Your task to perform on an android device: What's the weather? Image 0: 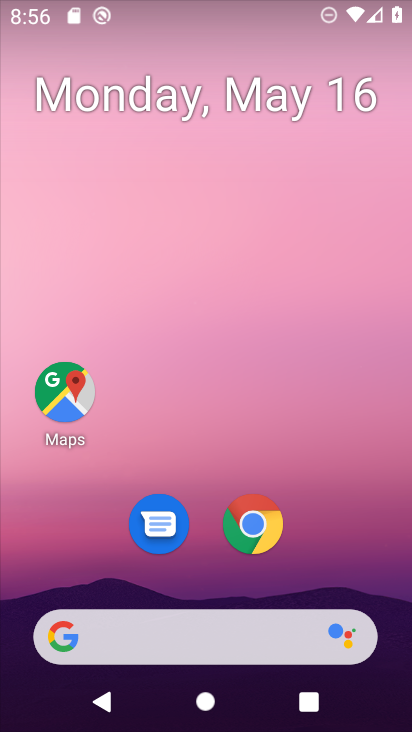
Step 0: click (185, 643)
Your task to perform on an android device: What's the weather? Image 1: 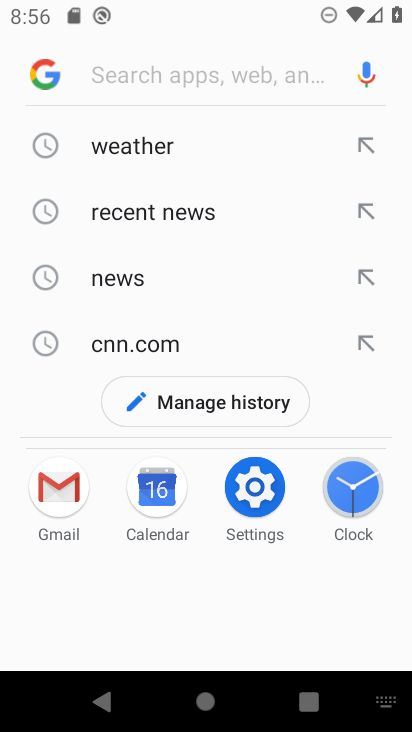
Step 1: click (97, 136)
Your task to perform on an android device: What's the weather? Image 2: 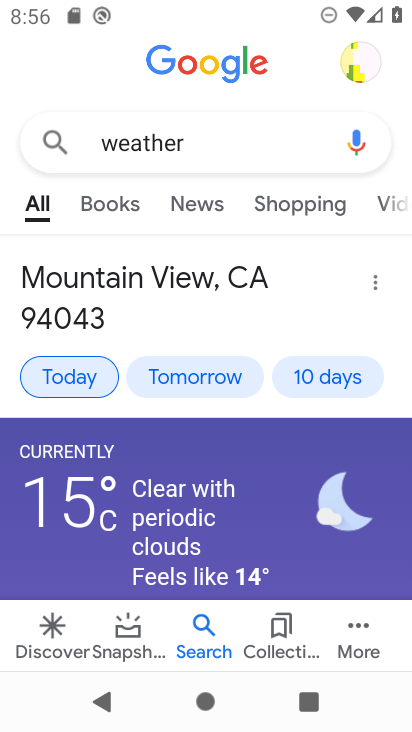
Step 2: click (81, 371)
Your task to perform on an android device: What's the weather? Image 3: 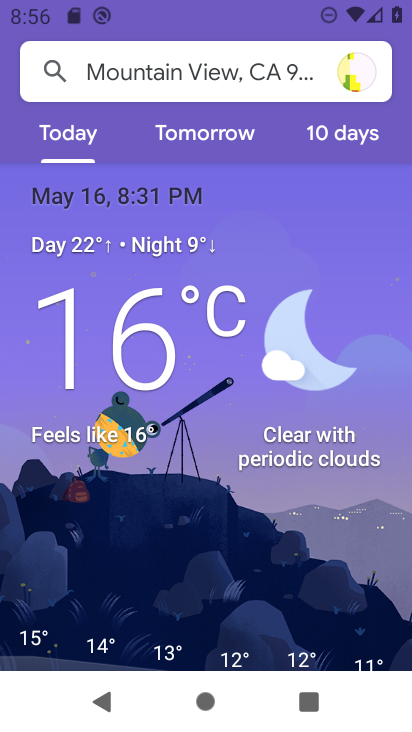
Step 3: task complete